Your task to perform on an android device: Open the phone app and click the voicemail tab. Image 0: 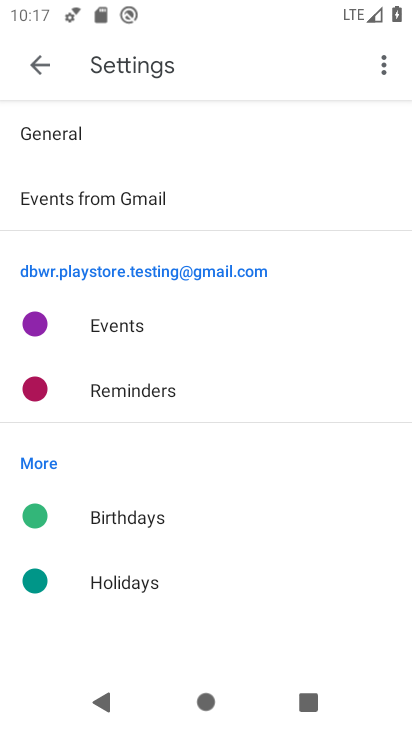
Step 0: press home button
Your task to perform on an android device: Open the phone app and click the voicemail tab. Image 1: 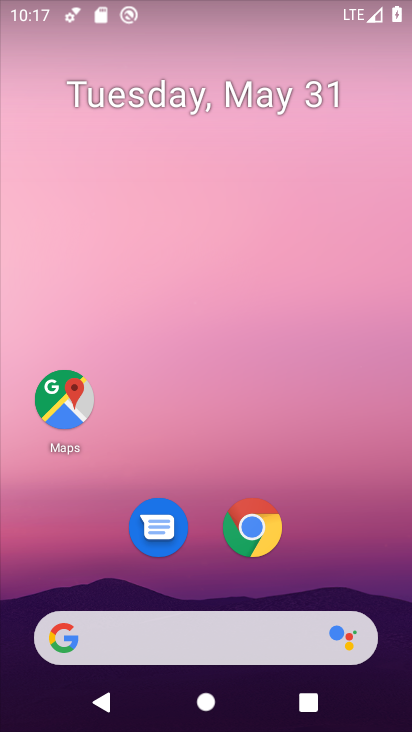
Step 1: drag from (374, 601) to (365, 4)
Your task to perform on an android device: Open the phone app and click the voicemail tab. Image 2: 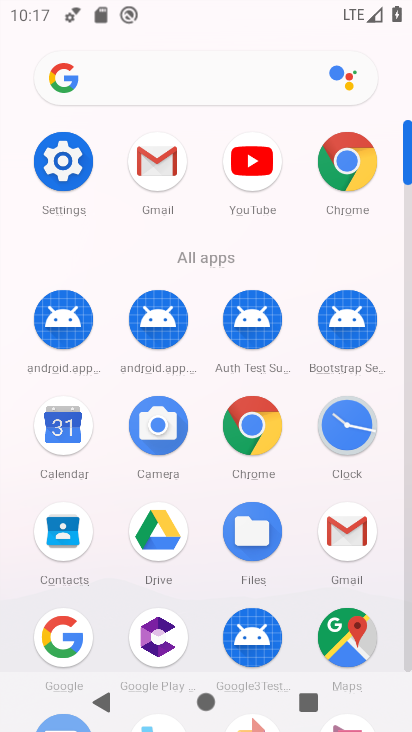
Step 2: click (407, 543)
Your task to perform on an android device: Open the phone app and click the voicemail tab. Image 3: 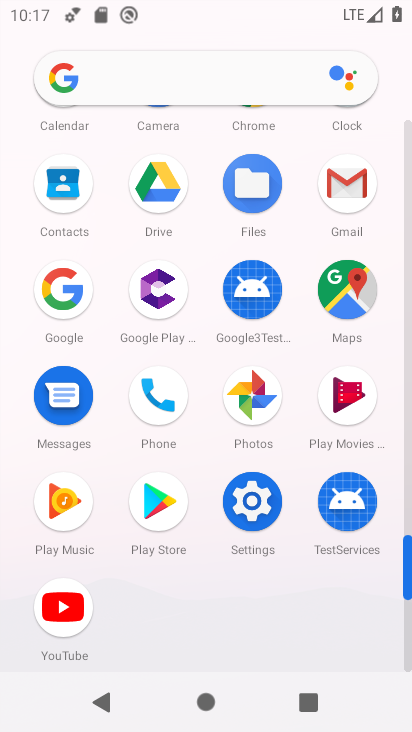
Step 3: click (153, 398)
Your task to perform on an android device: Open the phone app and click the voicemail tab. Image 4: 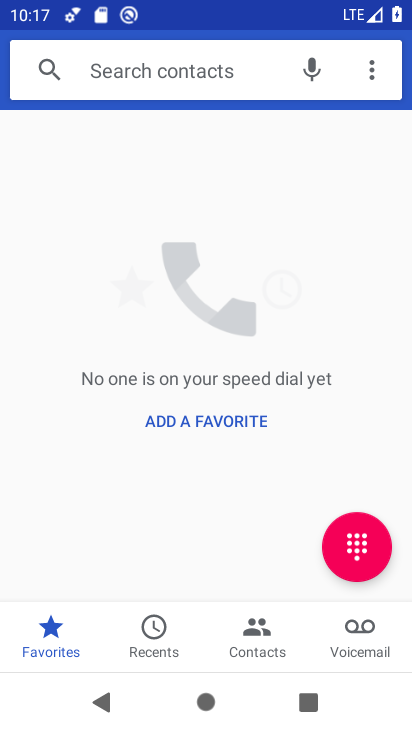
Step 4: click (379, 667)
Your task to perform on an android device: Open the phone app and click the voicemail tab. Image 5: 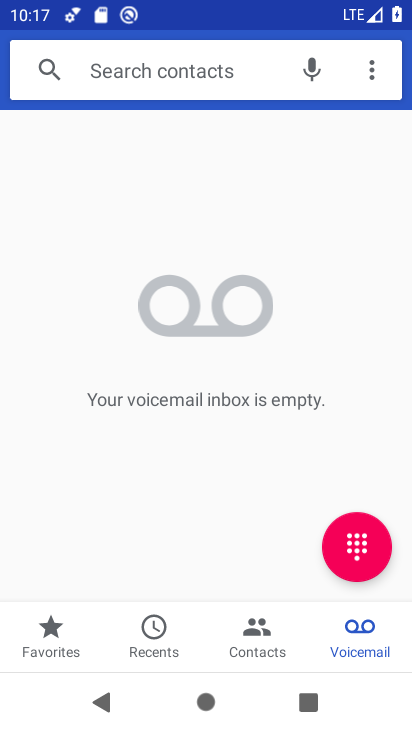
Step 5: task complete